Your task to perform on an android device: find photos in the google photos app Image 0: 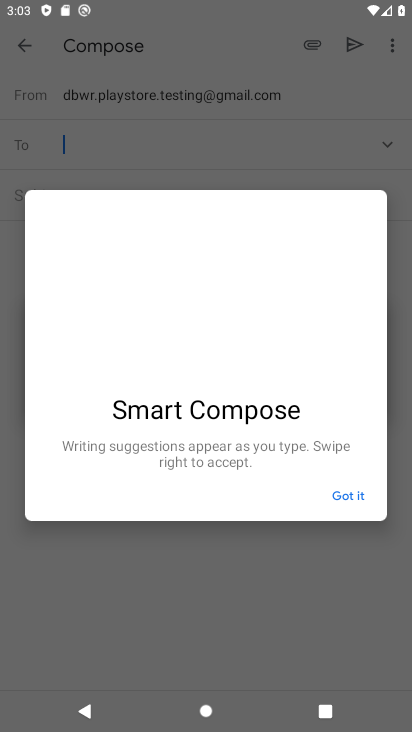
Step 0: press home button
Your task to perform on an android device: find photos in the google photos app Image 1: 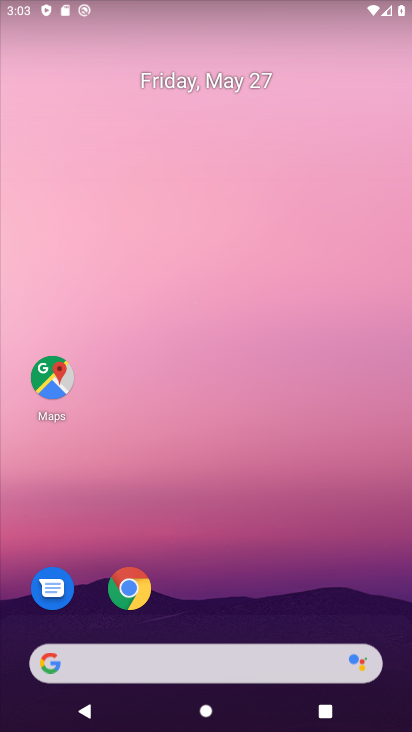
Step 1: click (135, 579)
Your task to perform on an android device: find photos in the google photos app Image 2: 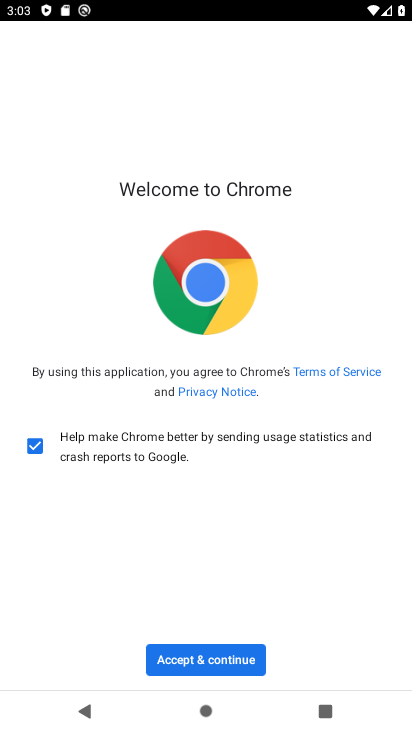
Step 2: click (202, 652)
Your task to perform on an android device: find photos in the google photos app Image 3: 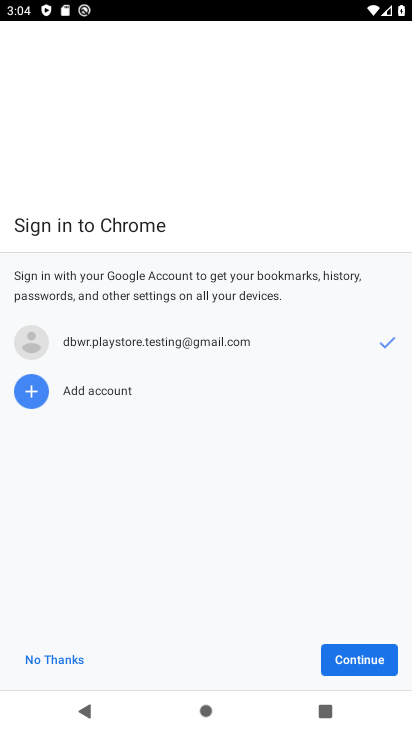
Step 3: click (369, 657)
Your task to perform on an android device: find photos in the google photos app Image 4: 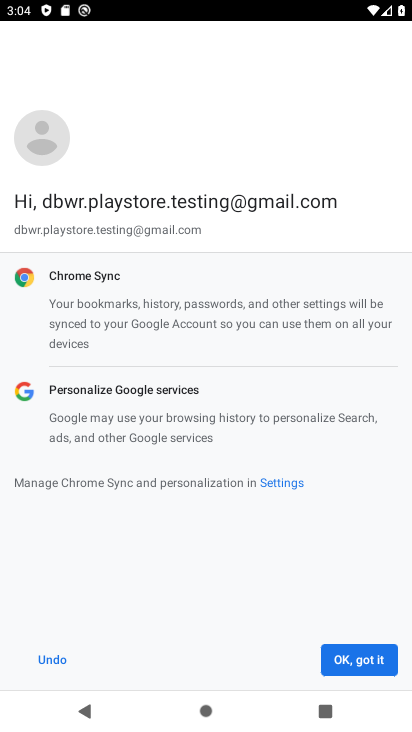
Step 4: press home button
Your task to perform on an android device: find photos in the google photos app Image 5: 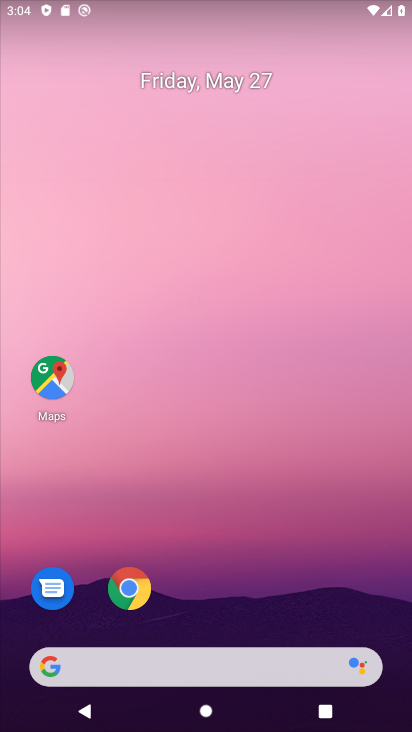
Step 5: drag from (248, 627) to (255, 89)
Your task to perform on an android device: find photos in the google photos app Image 6: 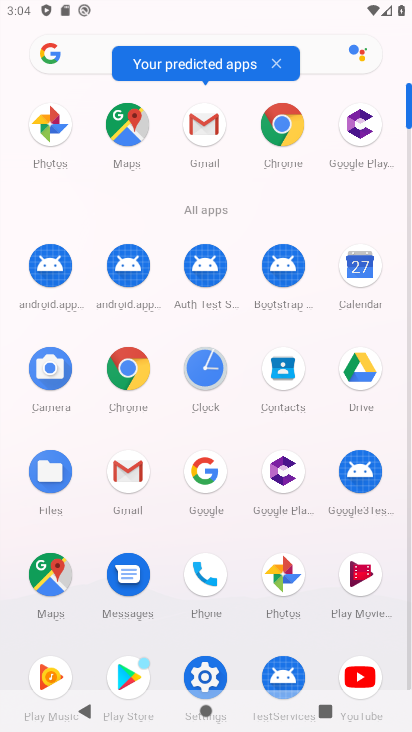
Step 6: click (271, 556)
Your task to perform on an android device: find photos in the google photos app Image 7: 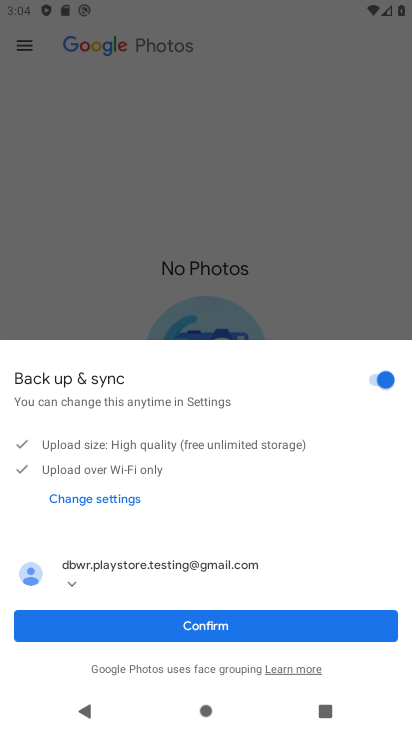
Step 7: click (216, 621)
Your task to perform on an android device: find photos in the google photos app Image 8: 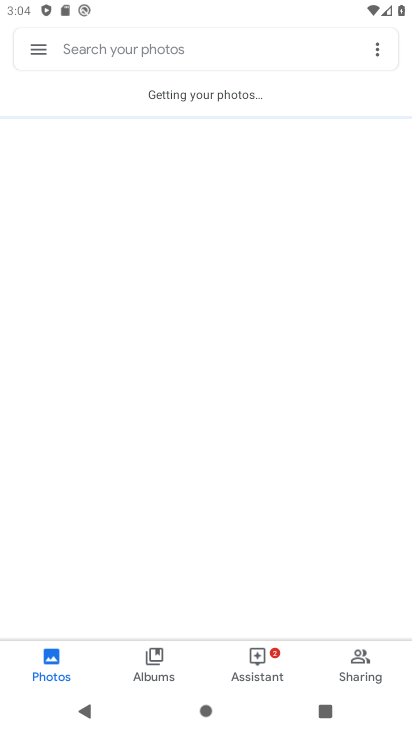
Step 8: task complete